Your task to perform on an android device: Go to sound settings Image 0: 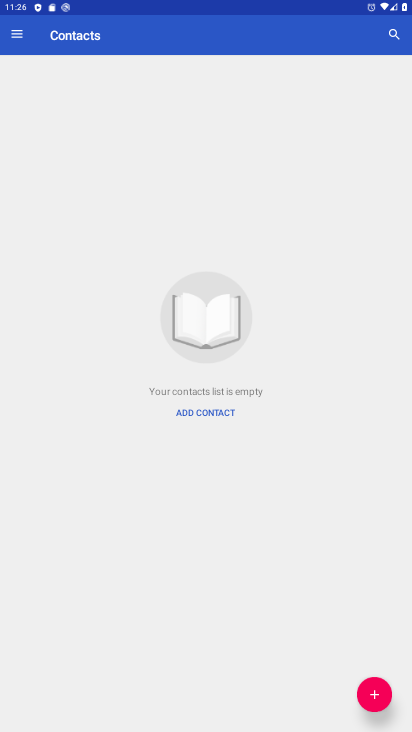
Step 0: drag from (288, 9) to (236, 699)
Your task to perform on an android device: Go to sound settings Image 1: 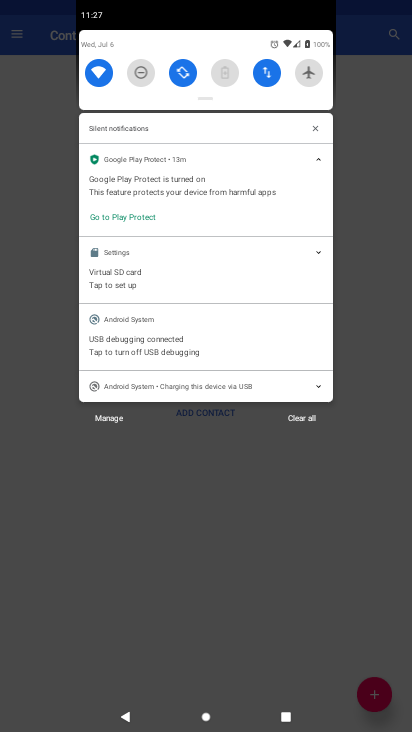
Step 1: drag from (226, 37) to (222, 423)
Your task to perform on an android device: Go to sound settings Image 2: 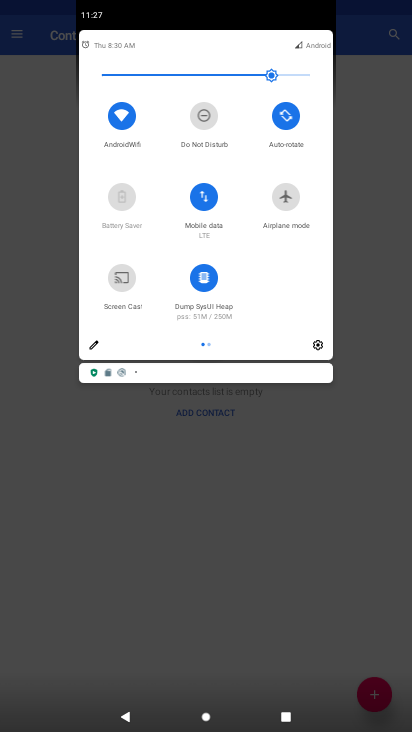
Step 2: click (317, 345)
Your task to perform on an android device: Go to sound settings Image 3: 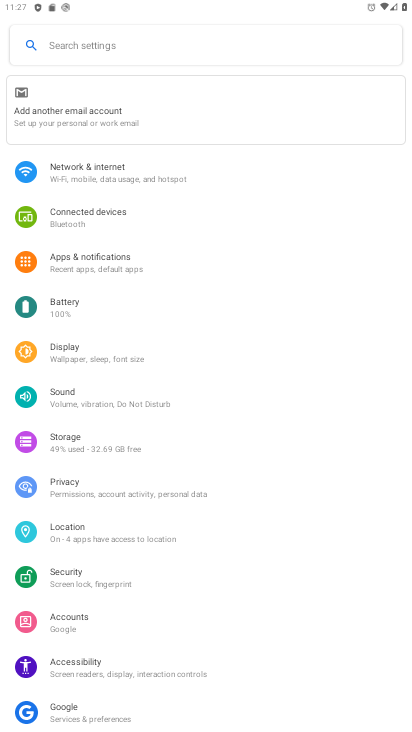
Step 3: drag from (131, 566) to (175, 159)
Your task to perform on an android device: Go to sound settings Image 4: 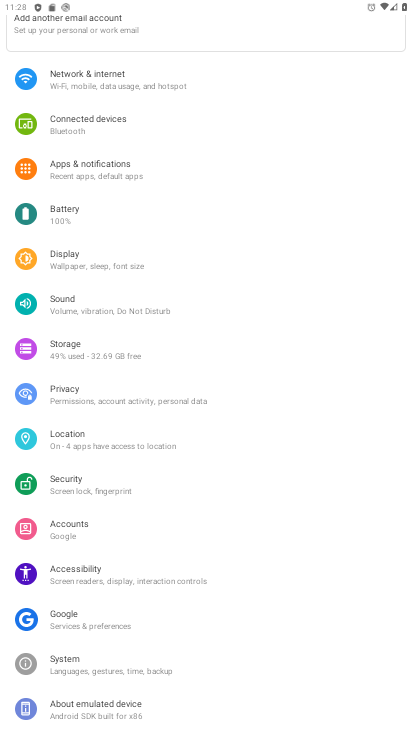
Step 4: click (111, 301)
Your task to perform on an android device: Go to sound settings Image 5: 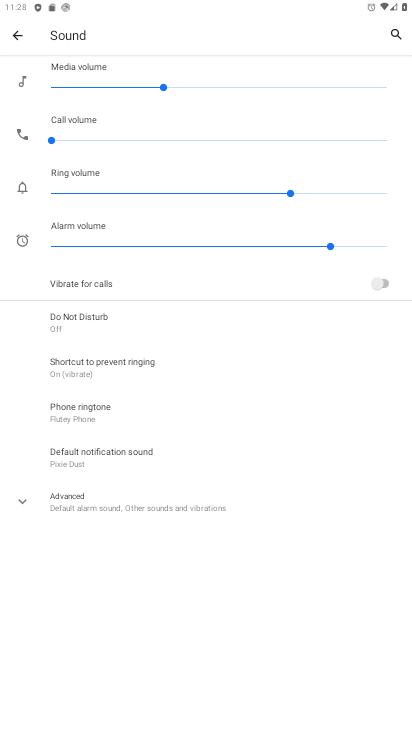
Step 5: task complete